Your task to perform on an android device: Open calendar and show me the third week of next month Image 0: 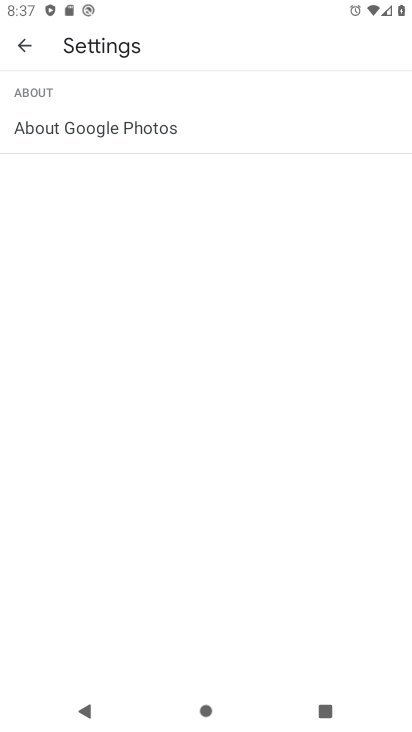
Step 0: press home button
Your task to perform on an android device: Open calendar and show me the third week of next month Image 1: 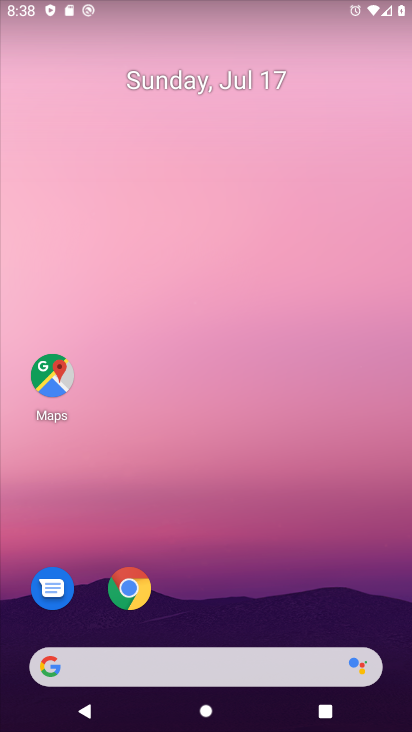
Step 1: drag from (233, 637) to (230, 69)
Your task to perform on an android device: Open calendar and show me the third week of next month Image 2: 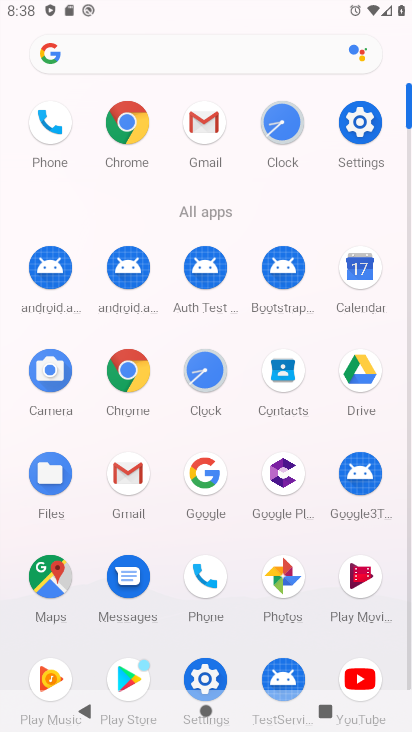
Step 2: click (352, 274)
Your task to perform on an android device: Open calendar and show me the third week of next month Image 3: 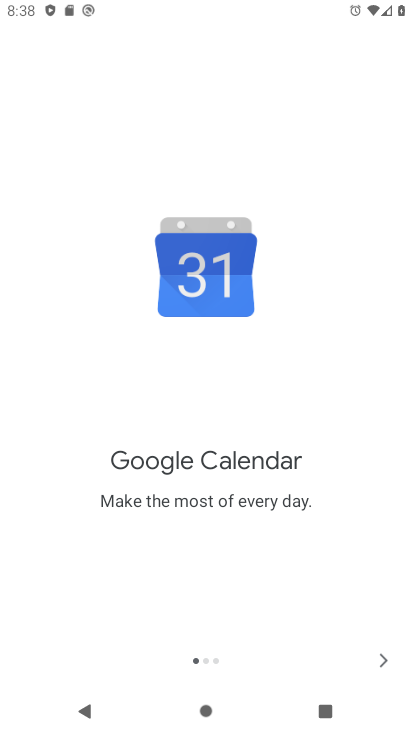
Step 3: click (380, 652)
Your task to perform on an android device: Open calendar and show me the third week of next month Image 4: 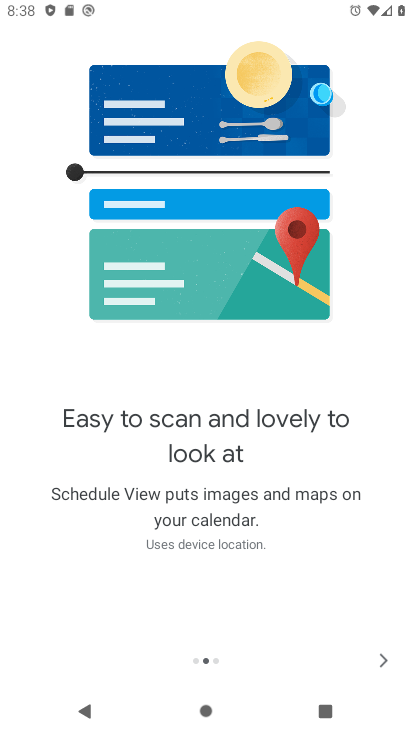
Step 4: click (388, 662)
Your task to perform on an android device: Open calendar and show me the third week of next month Image 5: 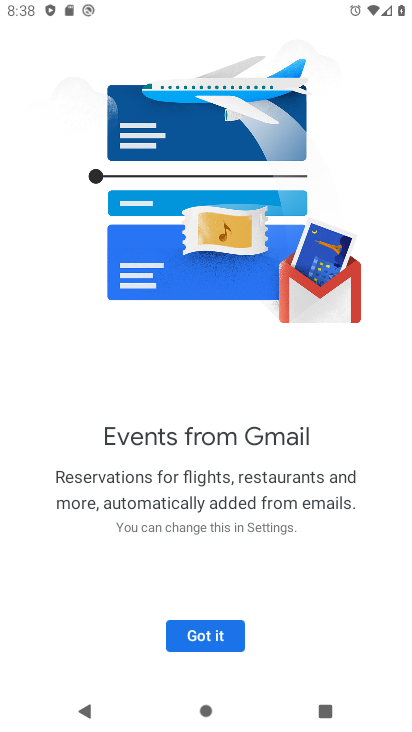
Step 5: click (224, 626)
Your task to perform on an android device: Open calendar and show me the third week of next month Image 6: 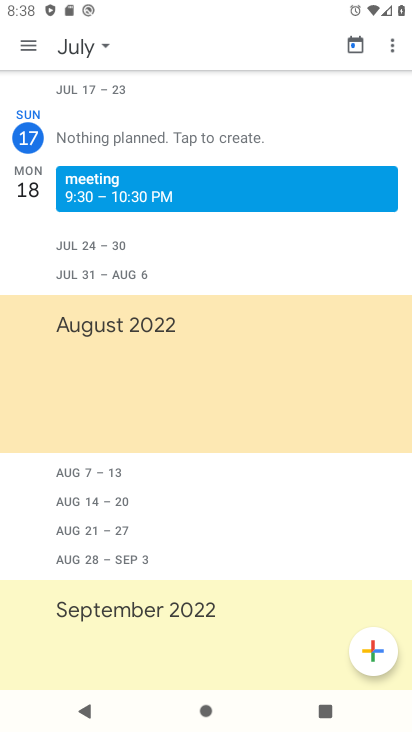
Step 6: click (26, 36)
Your task to perform on an android device: Open calendar and show me the third week of next month Image 7: 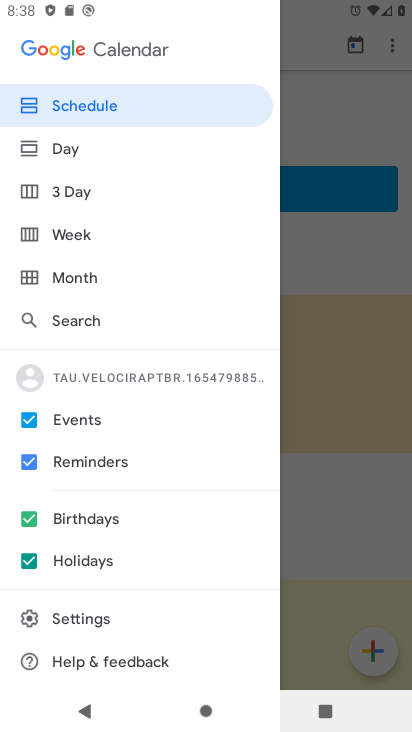
Step 7: click (84, 286)
Your task to perform on an android device: Open calendar and show me the third week of next month Image 8: 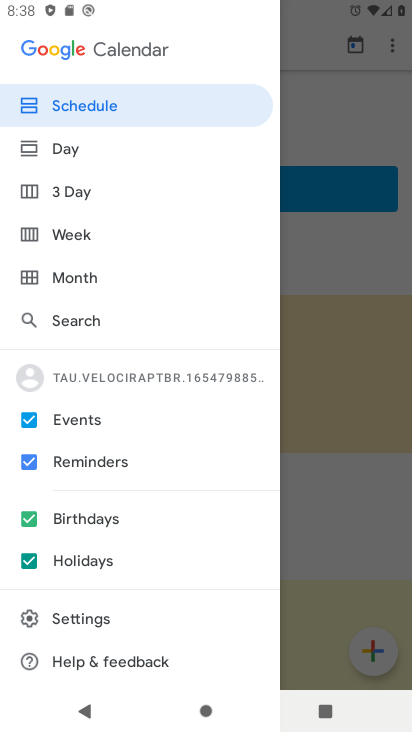
Step 8: click (76, 273)
Your task to perform on an android device: Open calendar and show me the third week of next month Image 9: 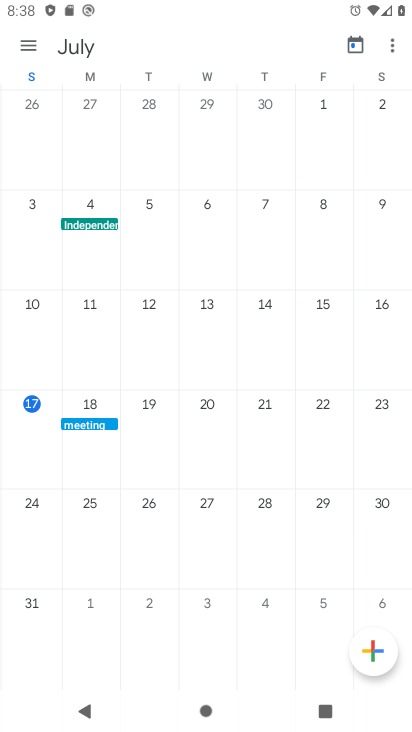
Step 9: click (21, 36)
Your task to perform on an android device: Open calendar and show me the third week of next month Image 10: 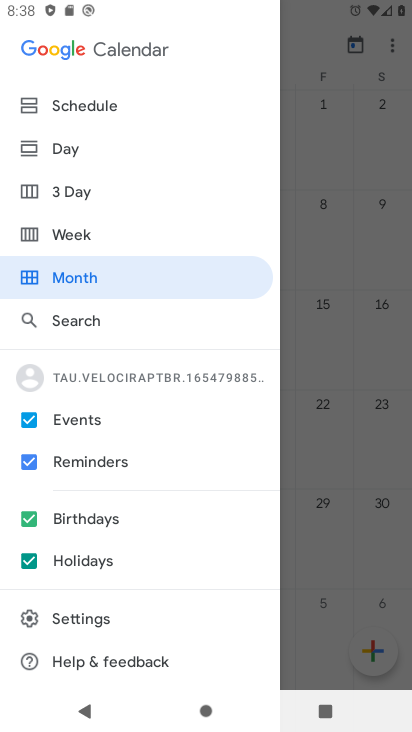
Step 10: click (72, 222)
Your task to perform on an android device: Open calendar and show me the third week of next month Image 11: 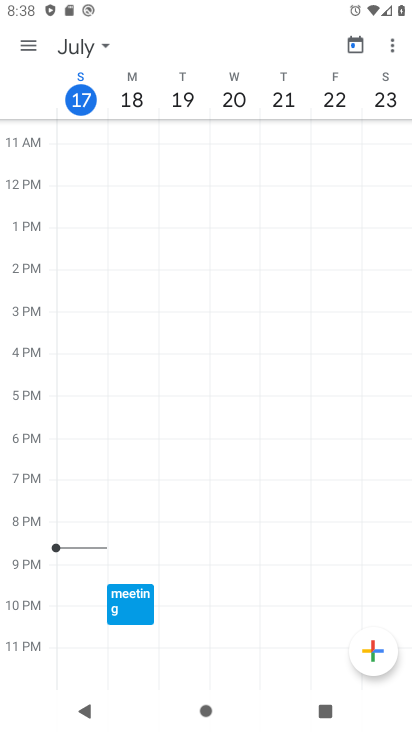
Step 11: task complete